Your task to perform on an android device: Search for sushi restaurants on Maps Image 0: 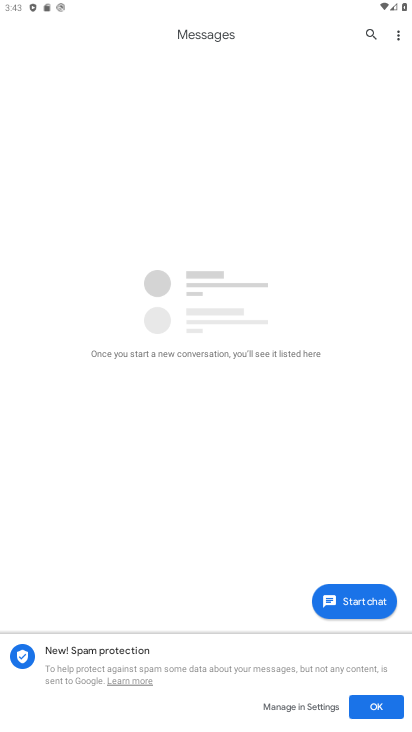
Step 0: press home button
Your task to perform on an android device: Search for sushi restaurants on Maps Image 1: 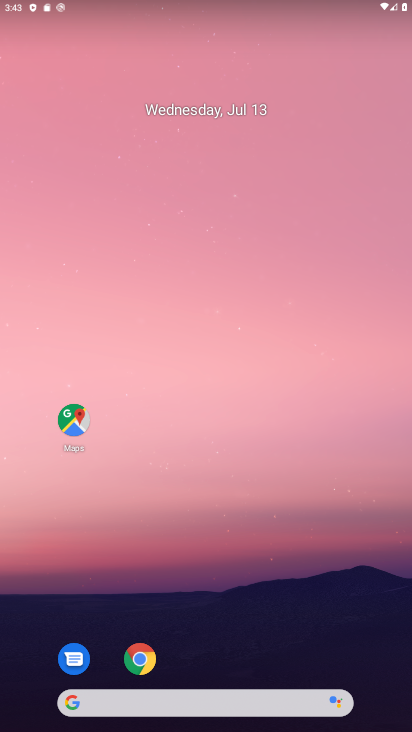
Step 1: click (71, 402)
Your task to perform on an android device: Search for sushi restaurants on Maps Image 2: 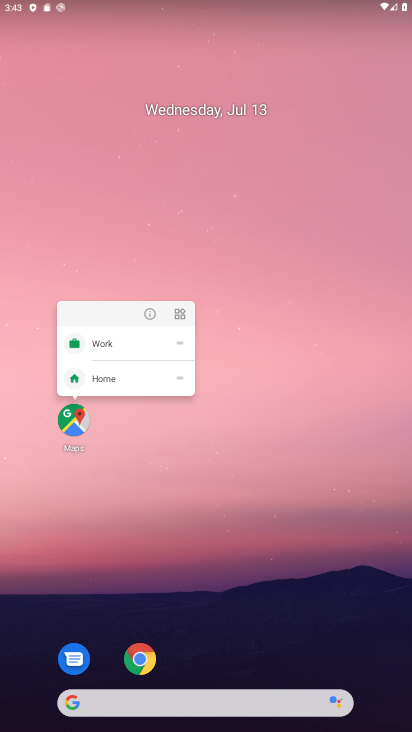
Step 2: click (78, 427)
Your task to perform on an android device: Search for sushi restaurants on Maps Image 3: 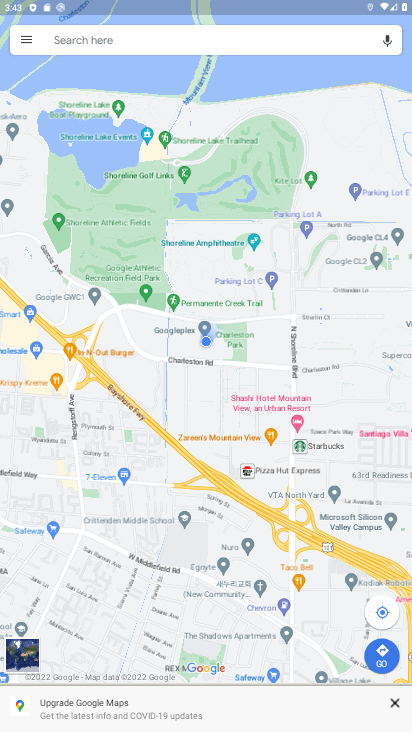
Step 3: click (84, 37)
Your task to perform on an android device: Search for sushi restaurants on Maps Image 4: 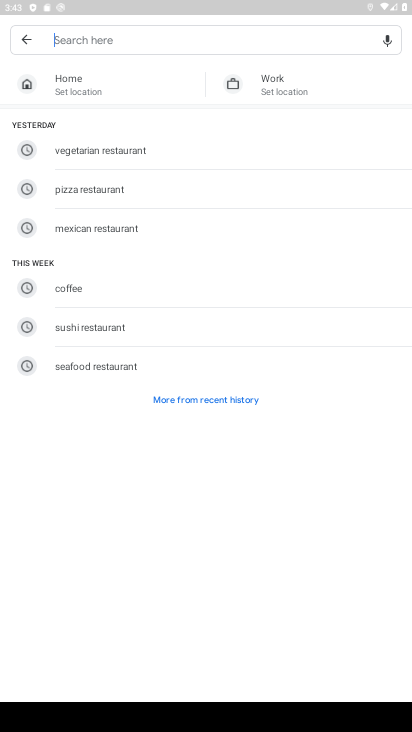
Step 4: click (82, 329)
Your task to perform on an android device: Search for sushi restaurants on Maps Image 5: 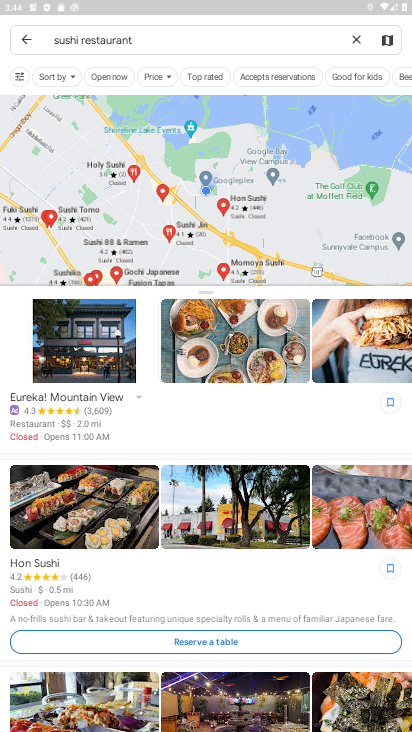
Step 5: task complete